Your task to perform on an android device: Open Google Chrome and click the shortcut for Amazon.com Image 0: 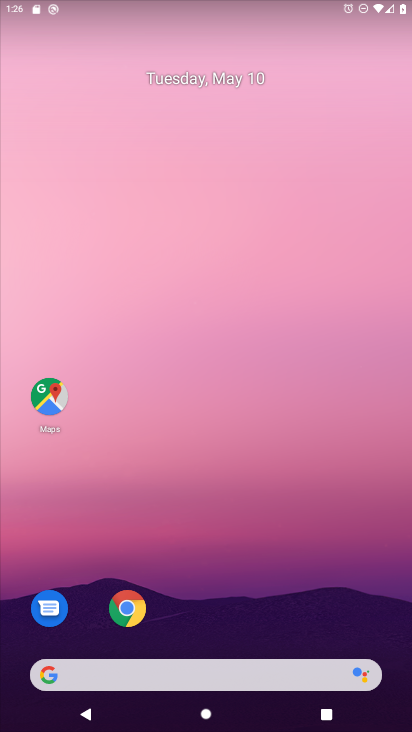
Step 0: drag from (312, 617) to (304, 151)
Your task to perform on an android device: Open Google Chrome and click the shortcut for Amazon.com Image 1: 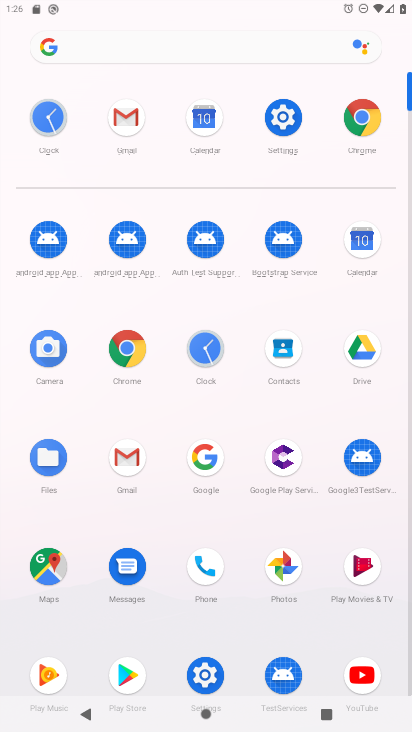
Step 1: click (371, 124)
Your task to perform on an android device: Open Google Chrome and click the shortcut for Amazon.com Image 2: 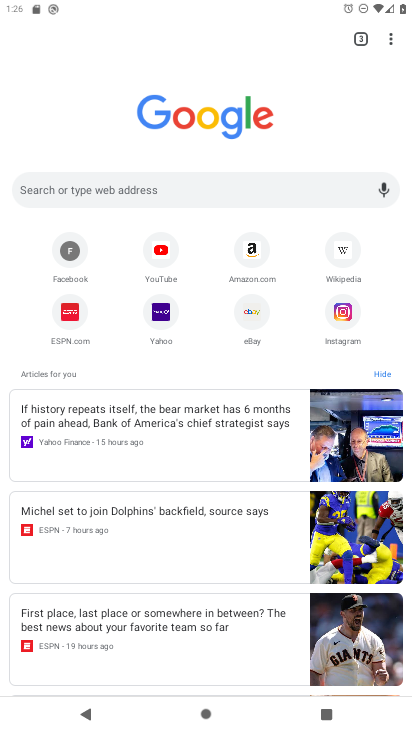
Step 2: click (259, 262)
Your task to perform on an android device: Open Google Chrome and click the shortcut for Amazon.com Image 3: 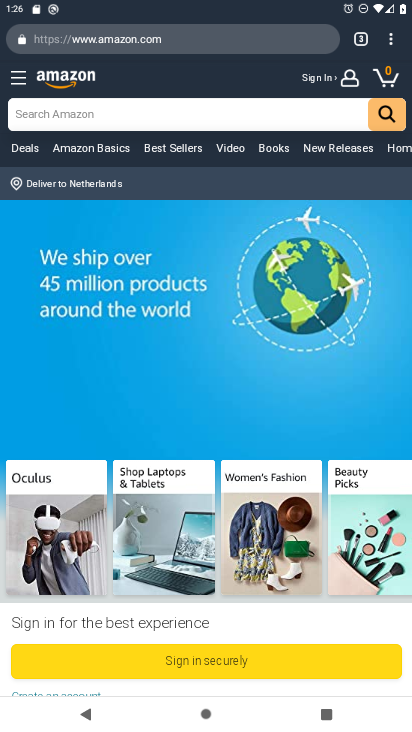
Step 3: task complete